Your task to perform on an android device: find snoozed emails in the gmail app Image 0: 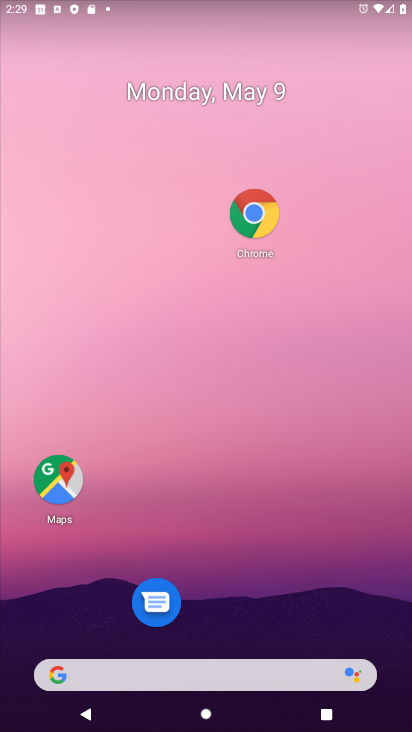
Step 0: drag from (324, 637) to (253, 175)
Your task to perform on an android device: find snoozed emails in the gmail app Image 1: 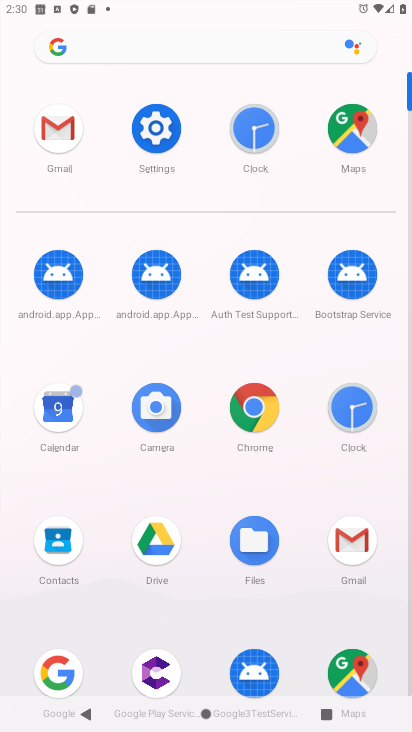
Step 1: click (335, 545)
Your task to perform on an android device: find snoozed emails in the gmail app Image 2: 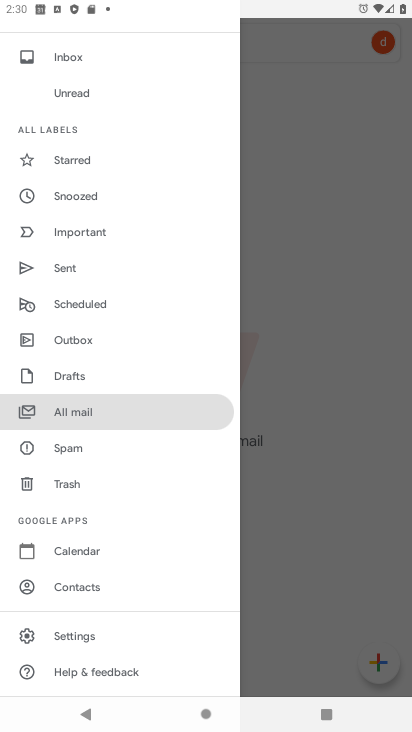
Step 2: click (104, 187)
Your task to perform on an android device: find snoozed emails in the gmail app Image 3: 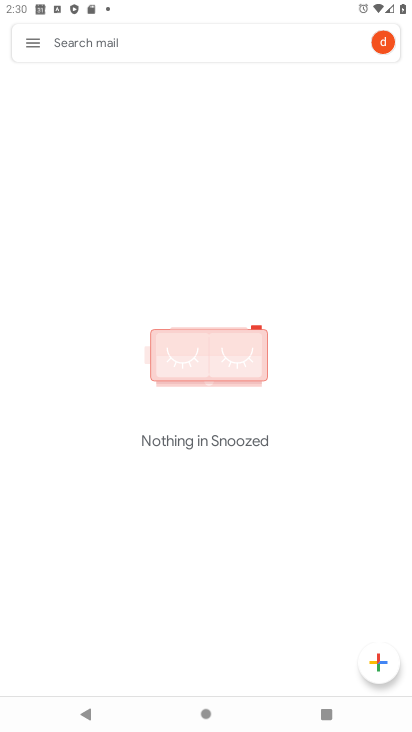
Step 3: task complete